Your task to perform on an android device: Show me recent news Image 0: 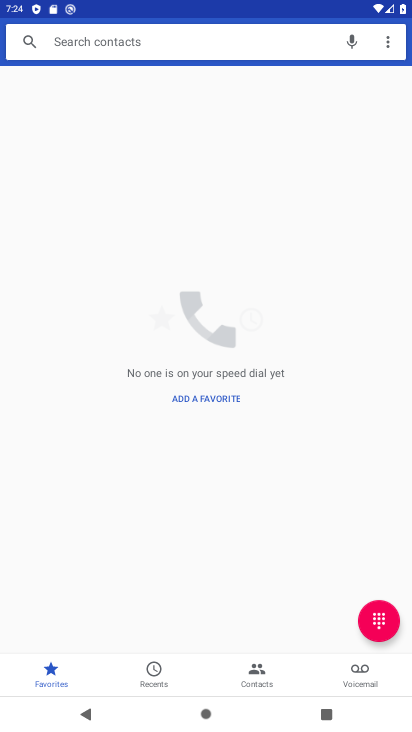
Step 0: press home button
Your task to perform on an android device: Show me recent news Image 1: 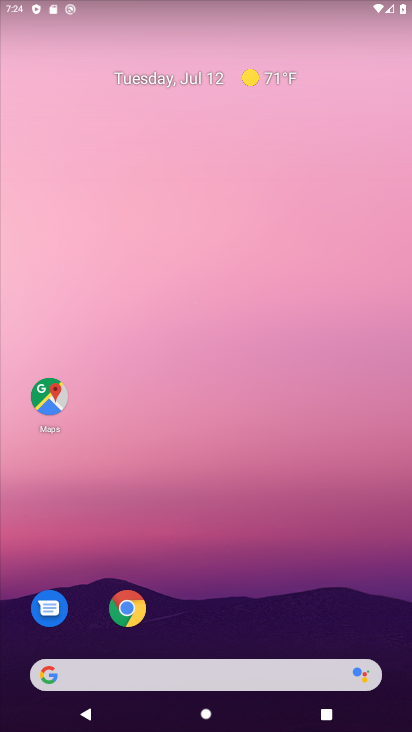
Step 1: drag from (10, 263) to (395, 251)
Your task to perform on an android device: Show me recent news Image 2: 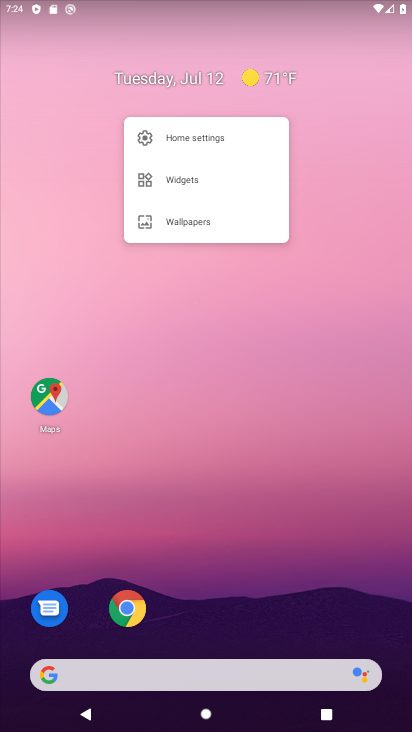
Step 2: click (293, 295)
Your task to perform on an android device: Show me recent news Image 3: 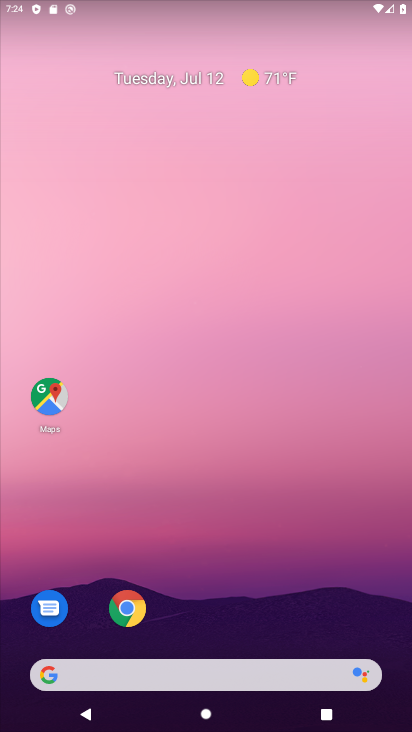
Step 3: task complete